Your task to perform on an android device: allow notifications from all sites in the chrome app Image 0: 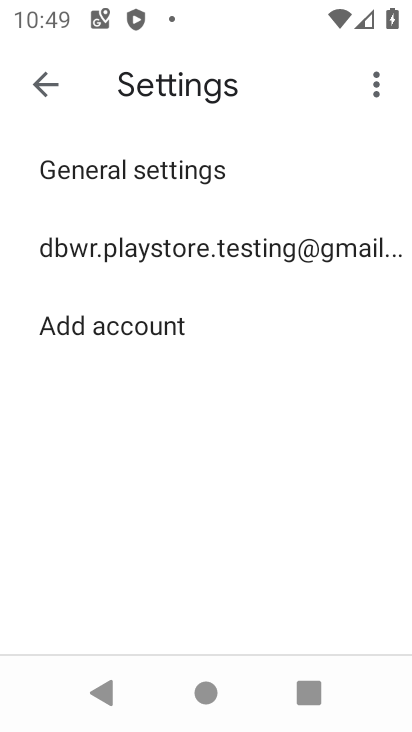
Step 0: press home button
Your task to perform on an android device: allow notifications from all sites in the chrome app Image 1: 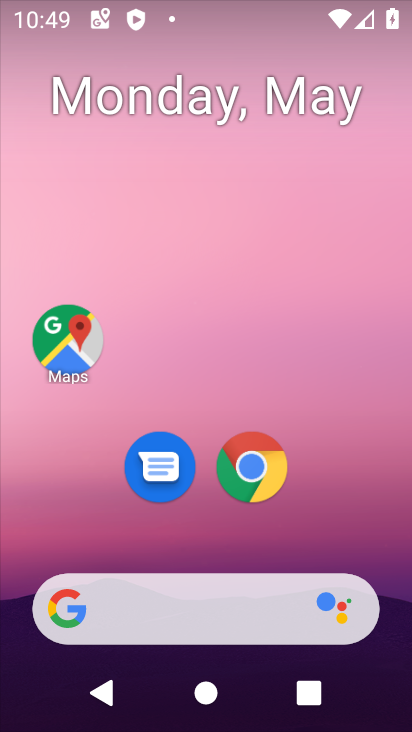
Step 1: click (258, 473)
Your task to perform on an android device: allow notifications from all sites in the chrome app Image 2: 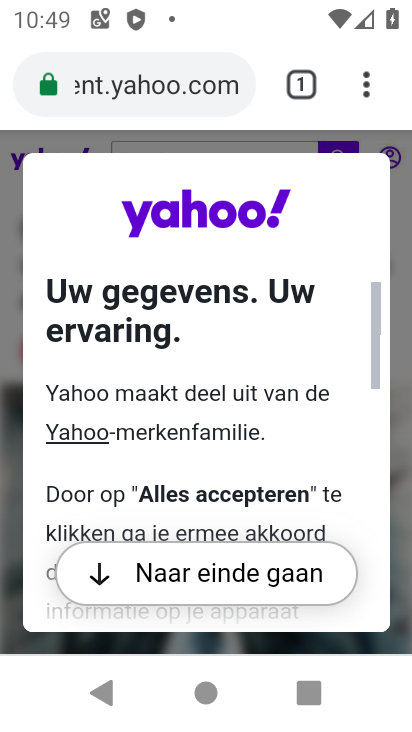
Step 2: click (361, 95)
Your task to perform on an android device: allow notifications from all sites in the chrome app Image 3: 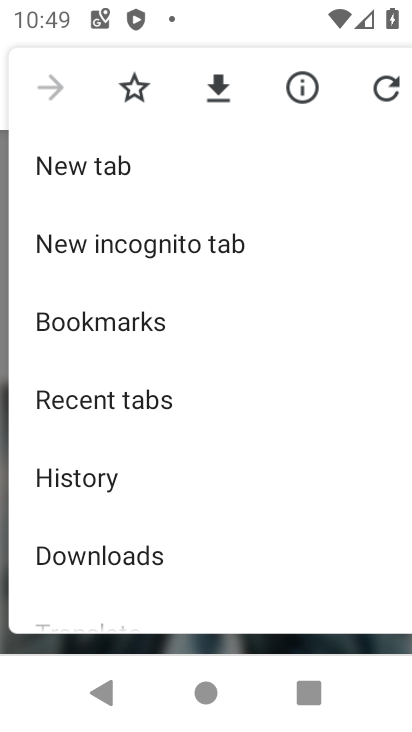
Step 3: drag from (226, 494) to (272, 75)
Your task to perform on an android device: allow notifications from all sites in the chrome app Image 4: 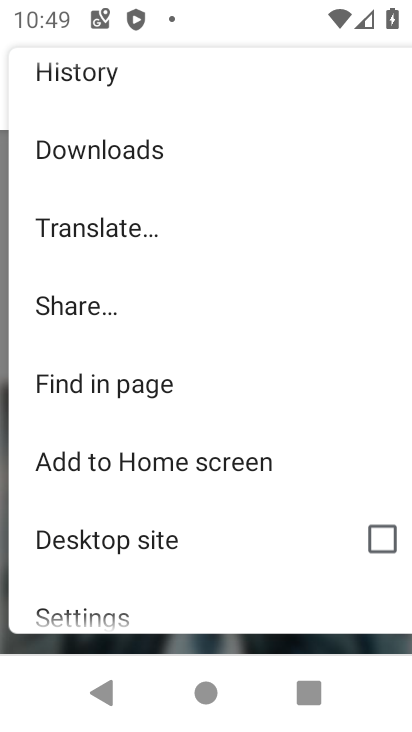
Step 4: drag from (254, 560) to (255, 119)
Your task to perform on an android device: allow notifications from all sites in the chrome app Image 5: 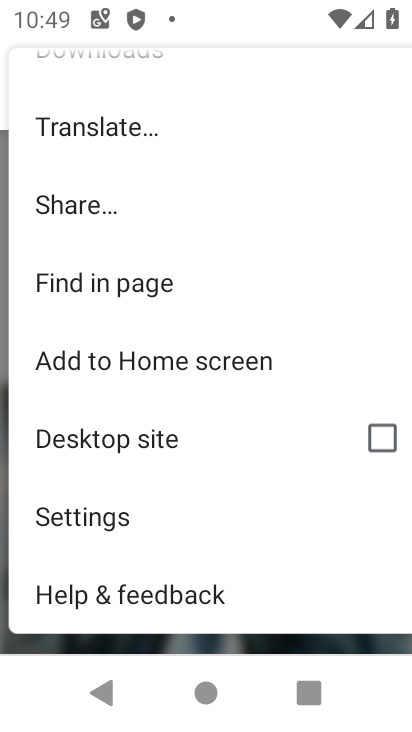
Step 5: click (78, 512)
Your task to perform on an android device: allow notifications from all sites in the chrome app Image 6: 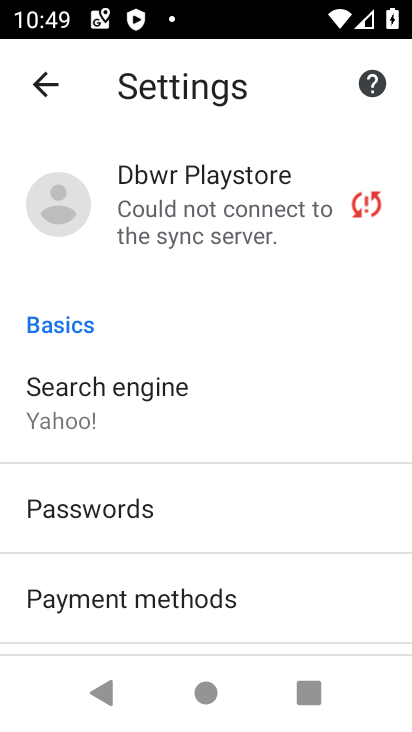
Step 6: drag from (261, 608) to (247, 222)
Your task to perform on an android device: allow notifications from all sites in the chrome app Image 7: 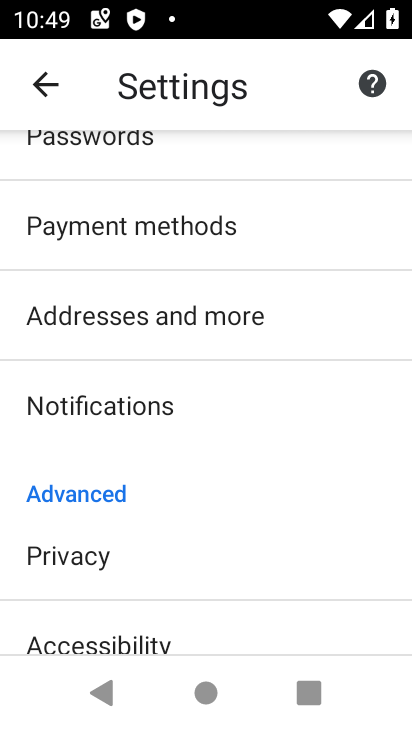
Step 7: drag from (185, 619) to (179, 467)
Your task to perform on an android device: allow notifications from all sites in the chrome app Image 8: 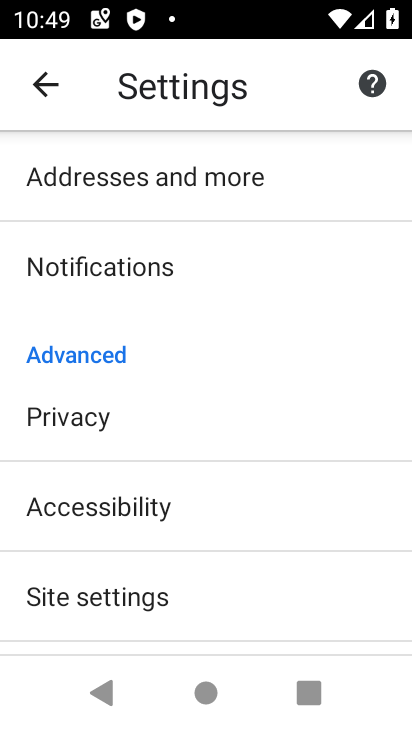
Step 8: click (94, 598)
Your task to perform on an android device: allow notifications from all sites in the chrome app Image 9: 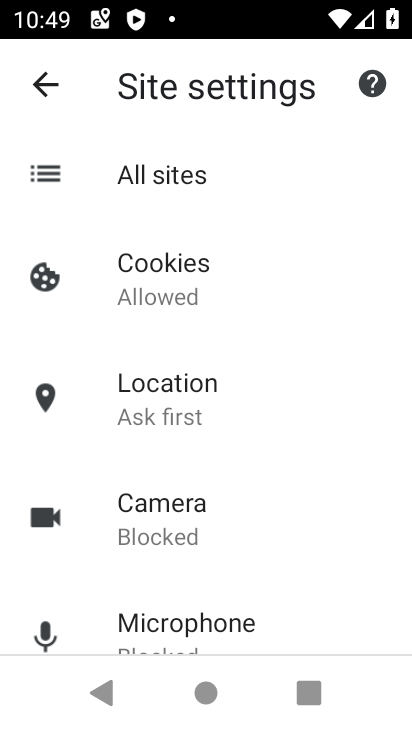
Step 9: drag from (267, 604) to (262, 173)
Your task to perform on an android device: allow notifications from all sites in the chrome app Image 10: 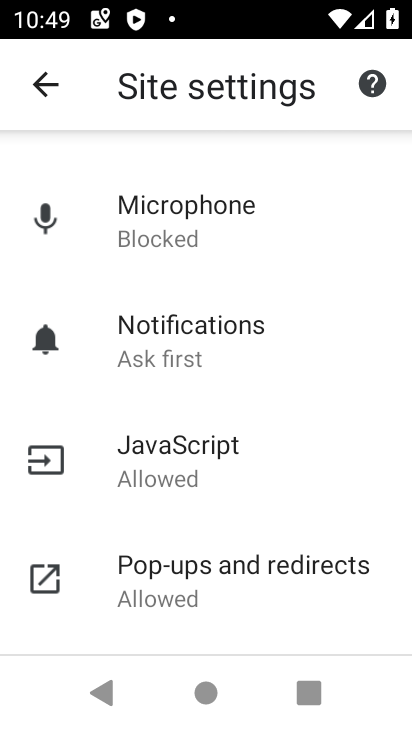
Step 10: click (170, 341)
Your task to perform on an android device: allow notifications from all sites in the chrome app Image 11: 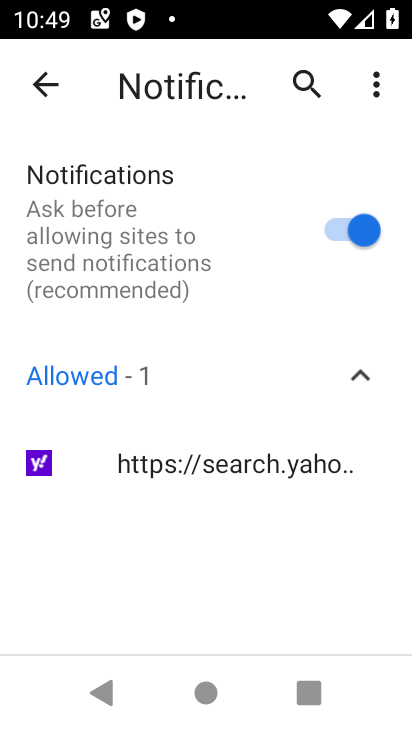
Step 11: task complete